Your task to perform on an android device: visit the assistant section in the google photos Image 0: 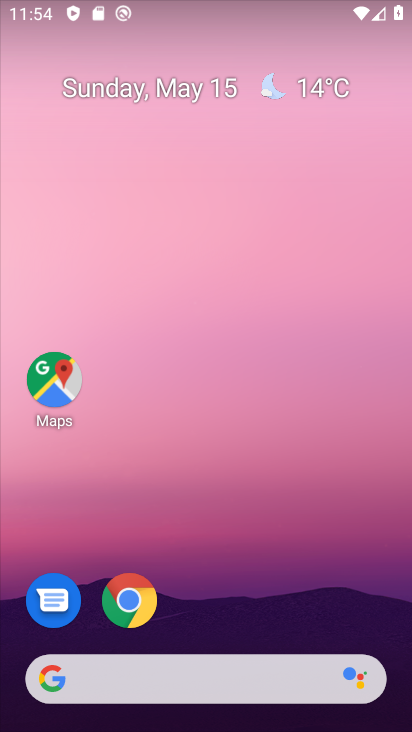
Step 0: drag from (287, 575) to (242, 25)
Your task to perform on an android device: visit the assistant section in the google photos Image 1: 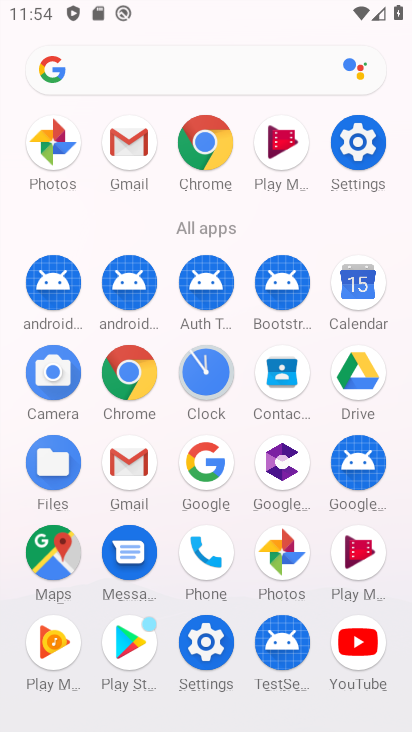
Step 1: click (281, 547)
Your task to perform on an android device: visit the assistant section in the google photos Image 2: 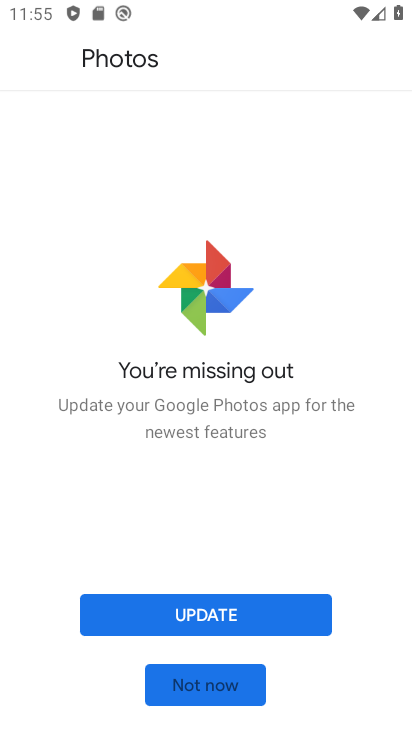
Step 2: click (219, 606)
Your task to perform on an android device: visit the assistant section in the google photos Image 3: 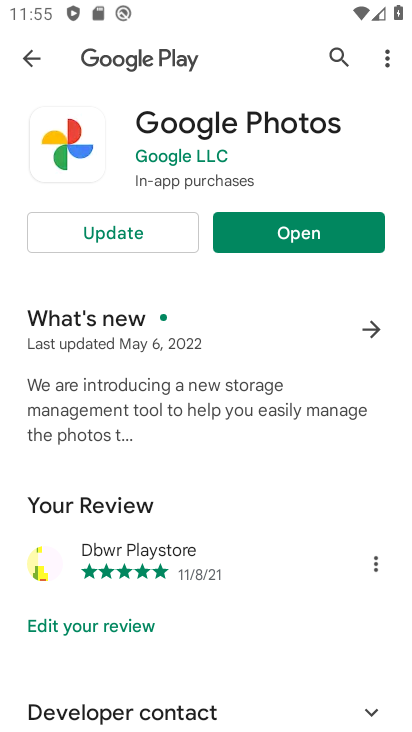
Step 3: click (141, 231)
Your task to perform on an android device: visit the assistant section in the google photos Image 4: 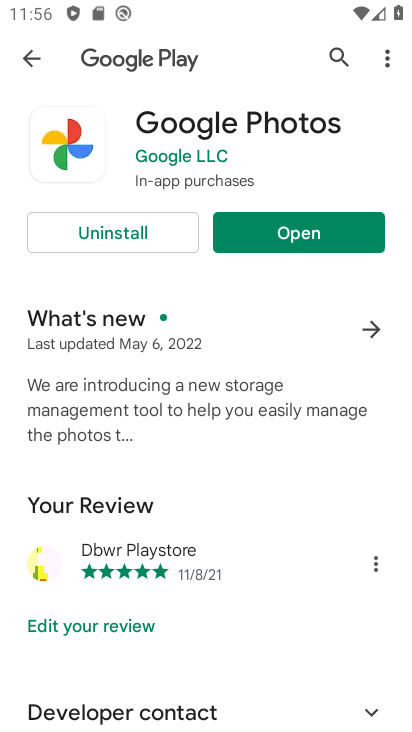
Step 4: click (303, 235)
Your task to perform on an android device: visit the assistant section in the google photos Image 5: 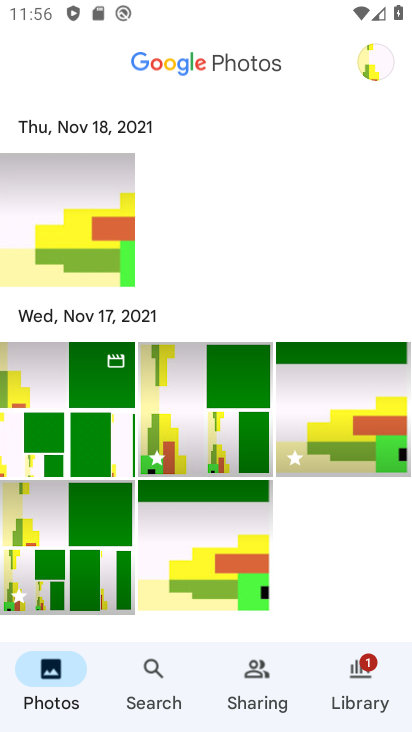
Step 5: click (365, 686)
Your task to perform on an android device: visit the assistant section in the google photos Image 6: 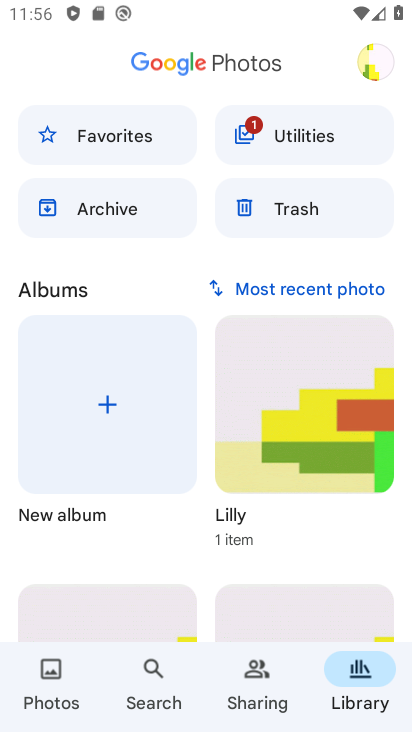
Step 6: click (52, 678)
Your task to perform on an android device: visit the assistant section in the google photos Image 7: 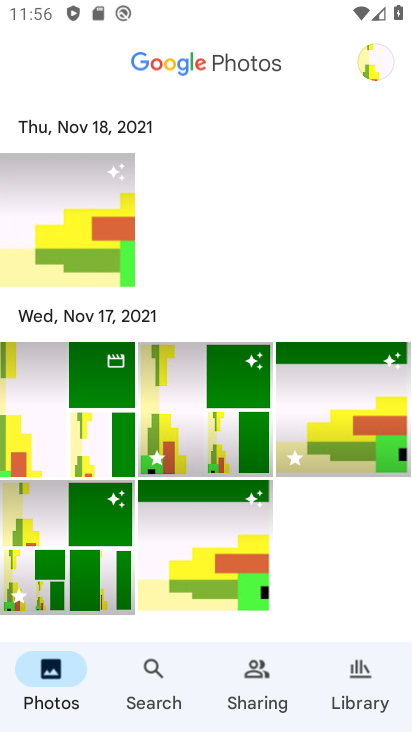
Step 7: click (357, 699)
Your task to perform on an android device: visit the assistant section in the google photos Image 8: 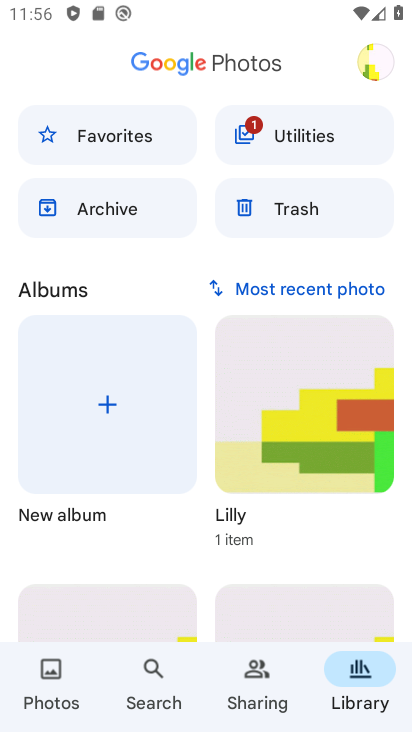
Step 8: task complete